Your task to perform on an android device: Open location settings Image 0: 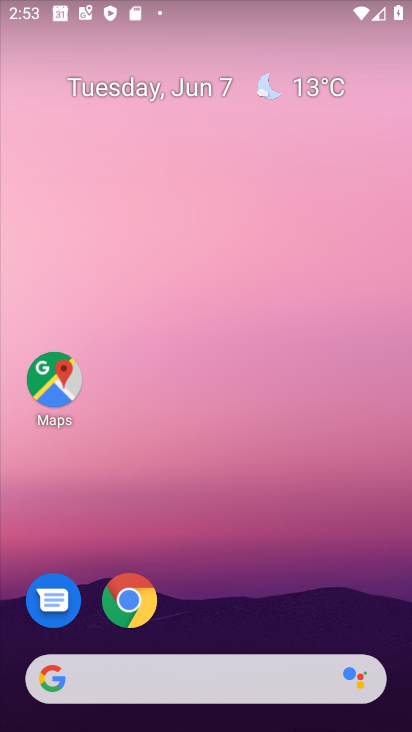
Step 0: drag from (182, 551) to (178, 137)
Your task to perform on an android device: Open location settings Image 1: 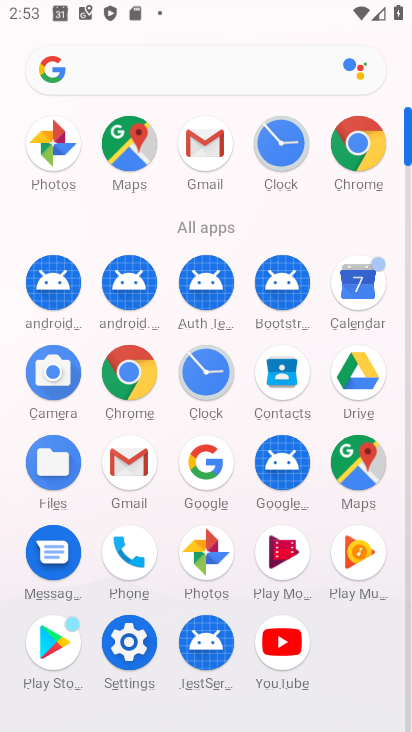
Step 1: click (118, 643)
Your task to perform on an android device: Open location settings Image 2: 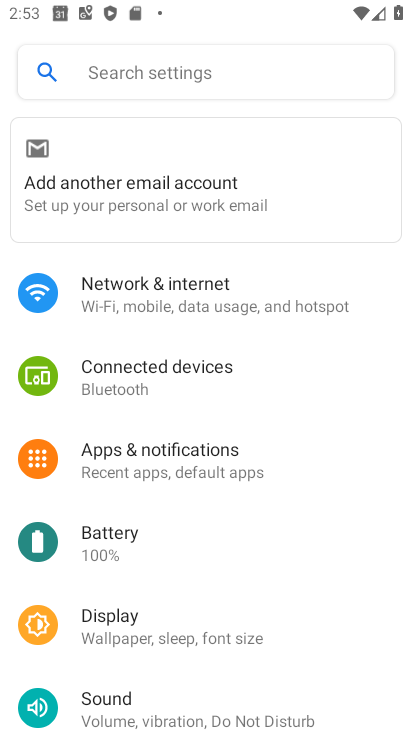
Step 2: drag from (125, 663) to (218, 306)
Your task to perform on an android device: Open location settings Image 3: 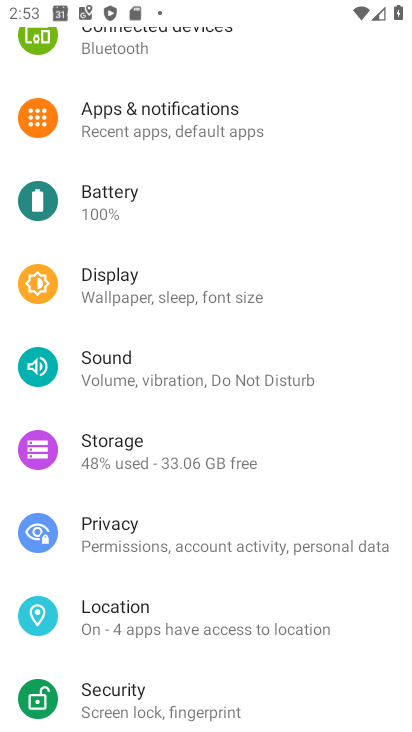
Step 3: click (103, 619)
Your task to perform on an android device: Open location settings Image 4: 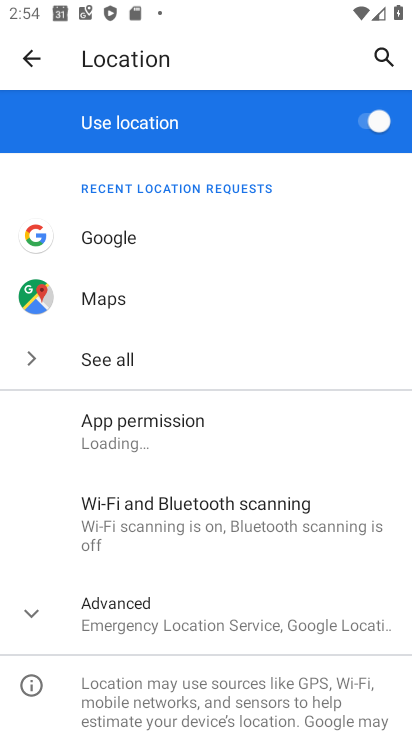
Step 4: task complete